Your task to perform on an android device: turn on bluetooth scan Image 0: 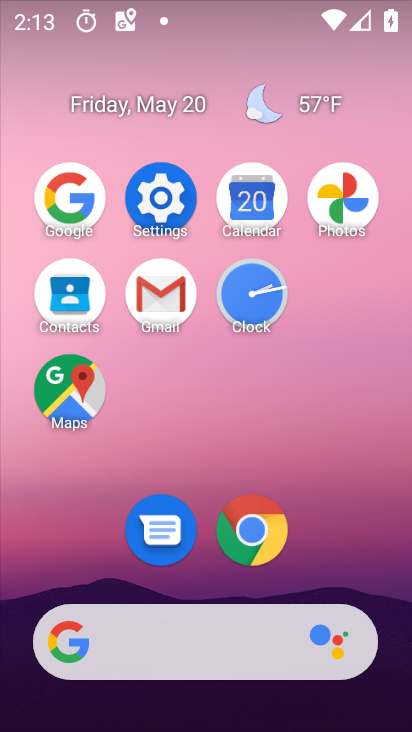
Step 0: click (173, 218)
Your task to perform on an android device: turn on bluetooth scan Image 1: 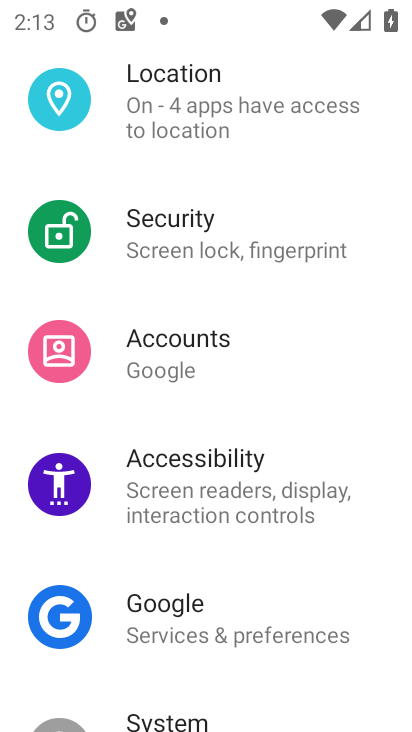
Step 1: drag from (302, 670) to (264, 197)
Your task to perform on an android device: turn on bluetooth scan Image 2: 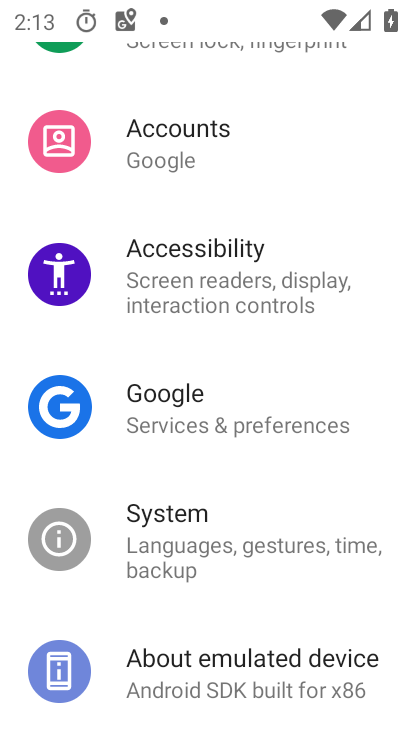
Step 2: drag from (270, 160) to (259, 645)
Your task to perform on an android device: turn on bluetooth scan Image 3: 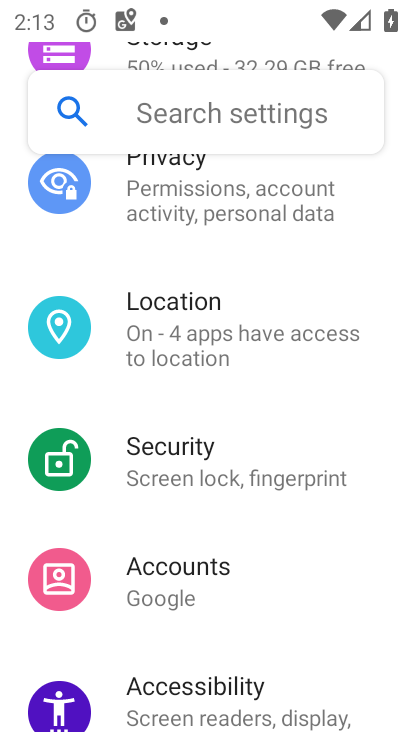
Step 3: click (241, 343)
Your task to perform on an android device: turn on bluetooth scan Image 4: 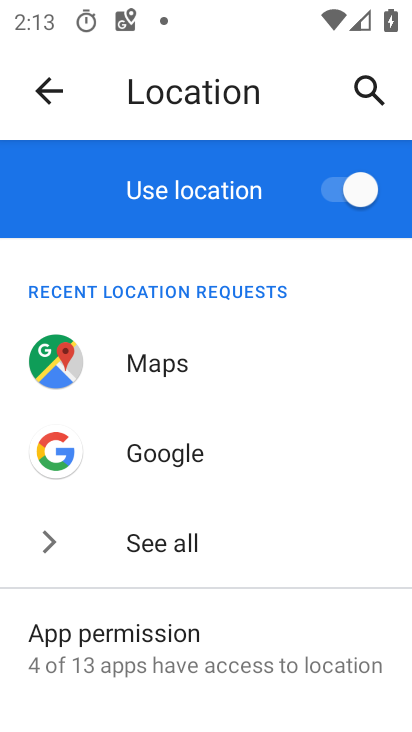
Step 4: drag from (232, 560) to (216, 130)
Your task to perform on an android device: turn on bluetooth scan Image 5: 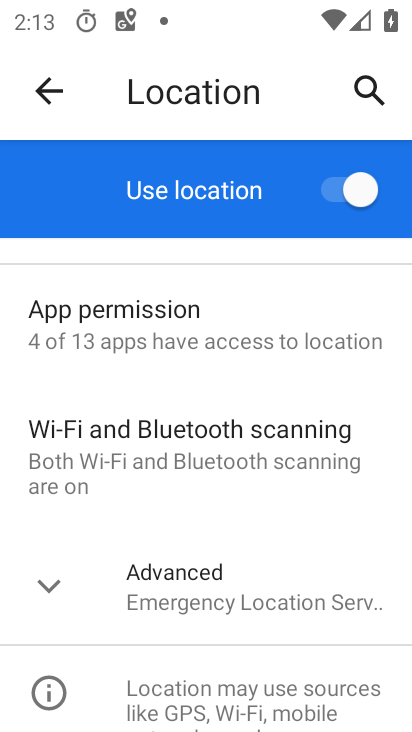
Step 5: click (221, 446)
Your task to perform on an android device: turn on bluetooth scan Image 6: 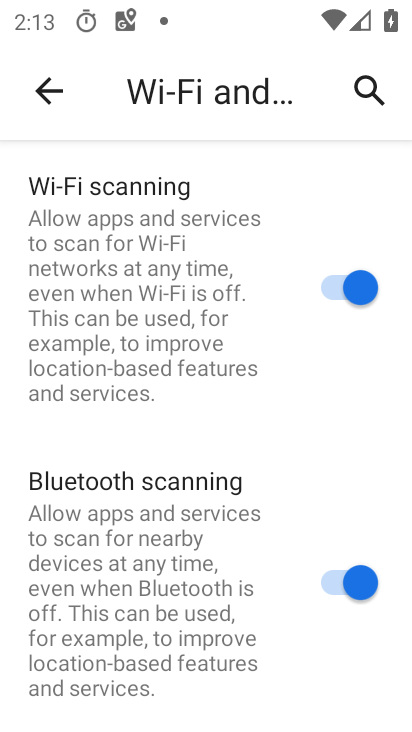
Step 6: task complete